Your task to perform on an android device: toggle notifications settings in the gmail app Image 0: 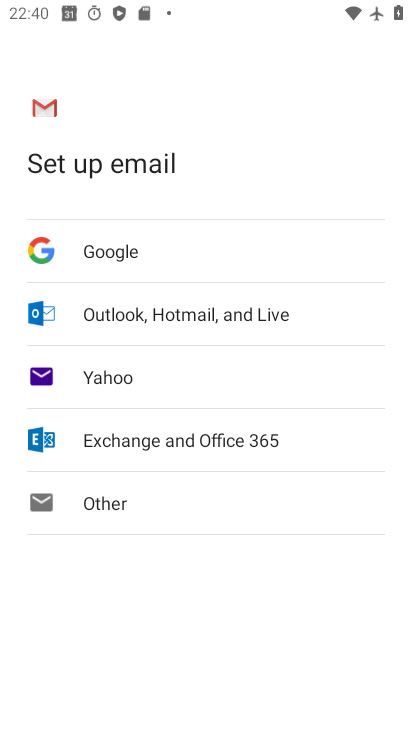
Step 0: press home button
Your task to perform on an android device: toggle notifications settings in the gmail app Image 1: 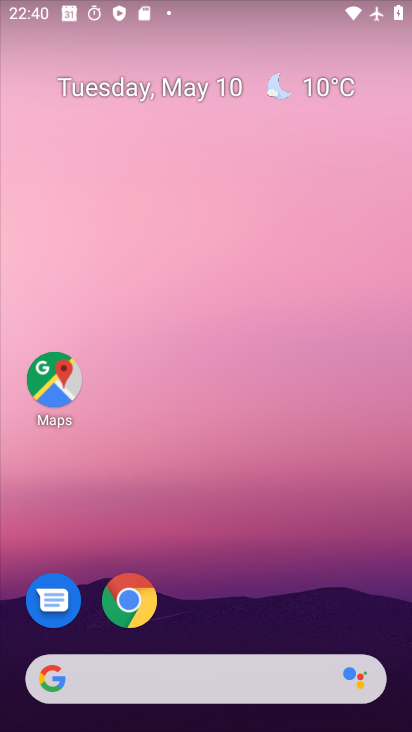
Step 1: drag from (230, 544) to (192, 62)
Your task to perform on an android device: toggle notifications settings in the gmail app Image 2: 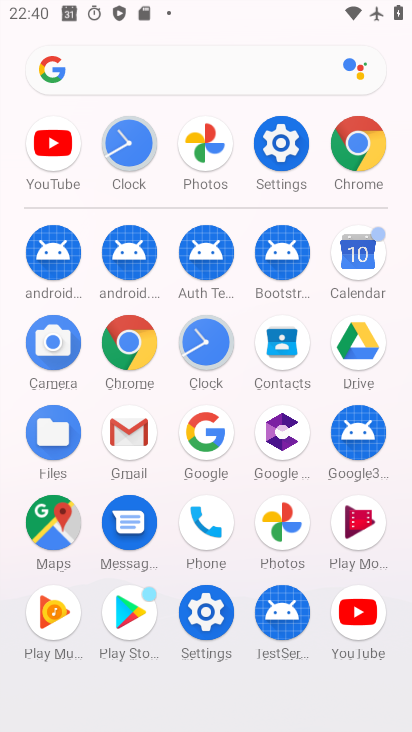
Step 2: click (111, 452)
Your task to perform on an android device: toggle notifications settings in the gmail app Image 3: 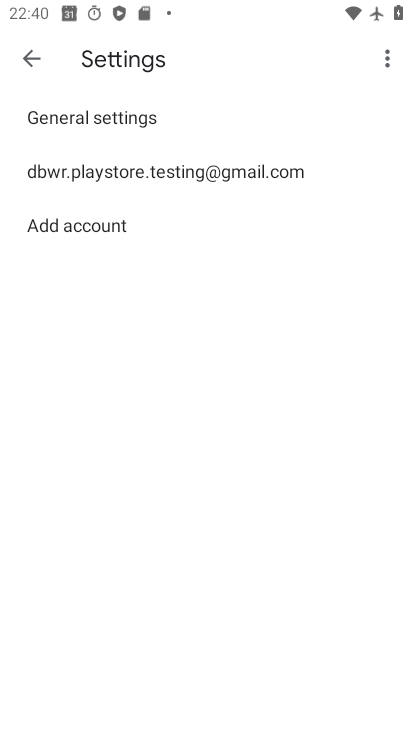
Step 3: click (74, 163)
Your task to perform on an android device: toggle notifications settings in the gmail app Image 4: 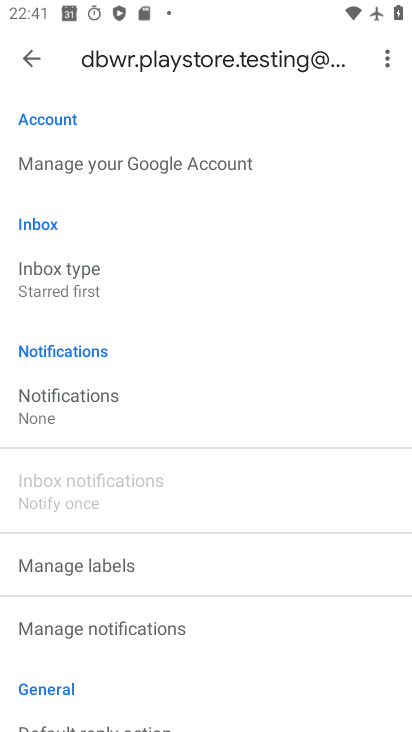
Step 4: click (50, 418)
Your task to perform on an android device: toggle notifications settings in the gmail app Image 5: 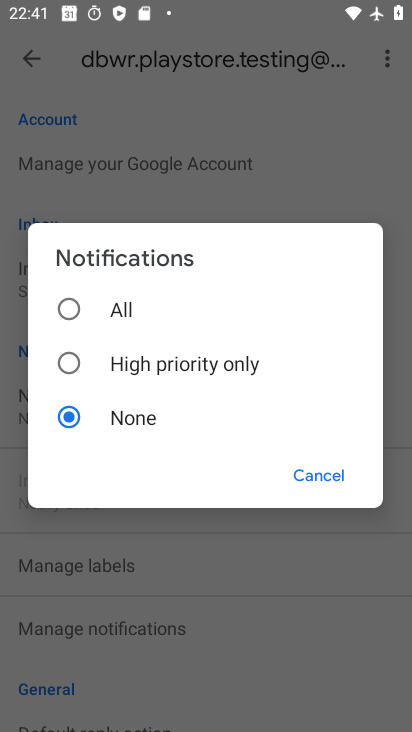
Step 5: click (75, 310)
Your task to perform on an android device: toggle notifications settings in the gmail app Image 6: 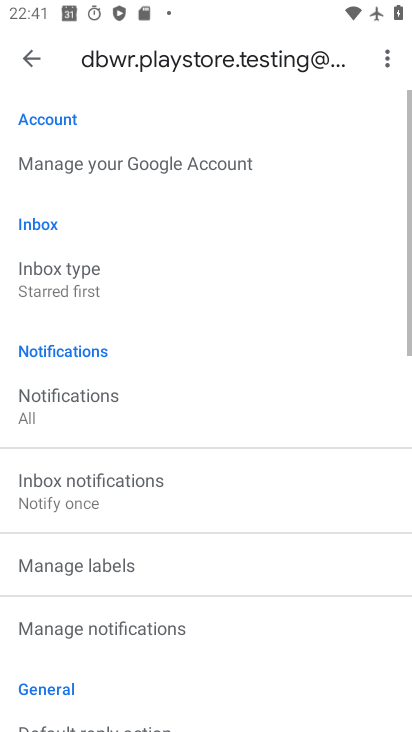
Step 6: task complete